Your task to perform on an android device: Open Google Chrome and open the bookmarks view Image 0: 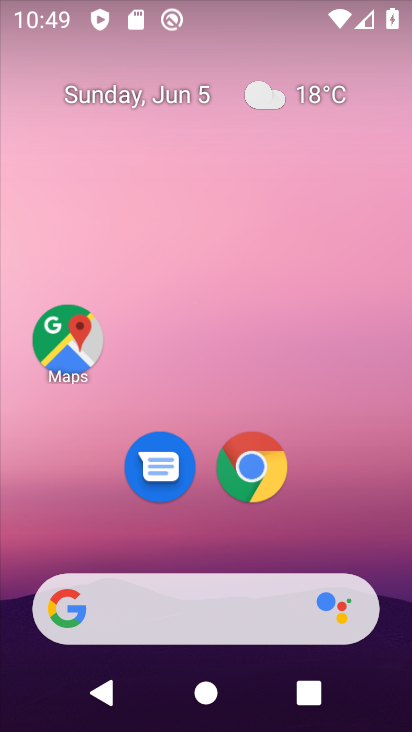
Step 0: click (369, 687)
Your task to perform on an android device: Open Google Chrome and open the bookmarks view Image 1: 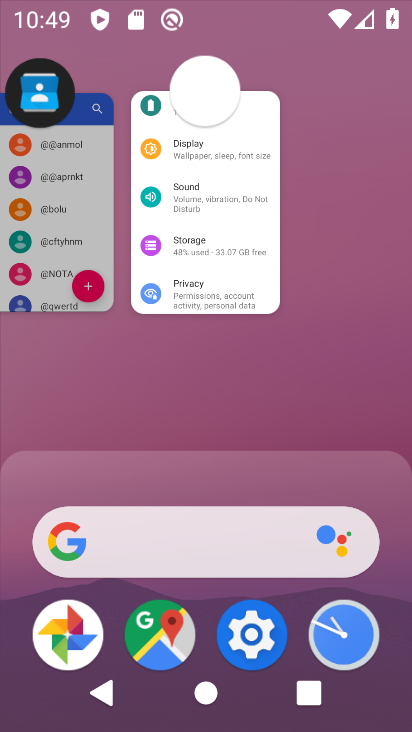
Step 1: click (273, 427)
Your task to perform on an android device: Open Google Chrome and open the bookmarks view Image 2: 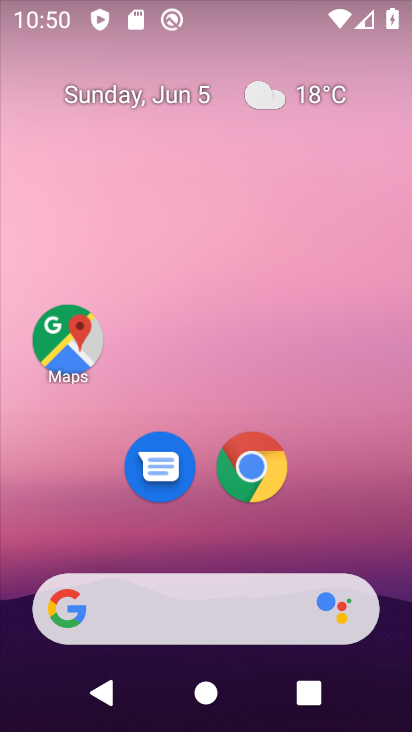
Step 2: click (262, 473)
Your task to perform on an android device: Open Google Chrome and open the bookmarks view Image 3: 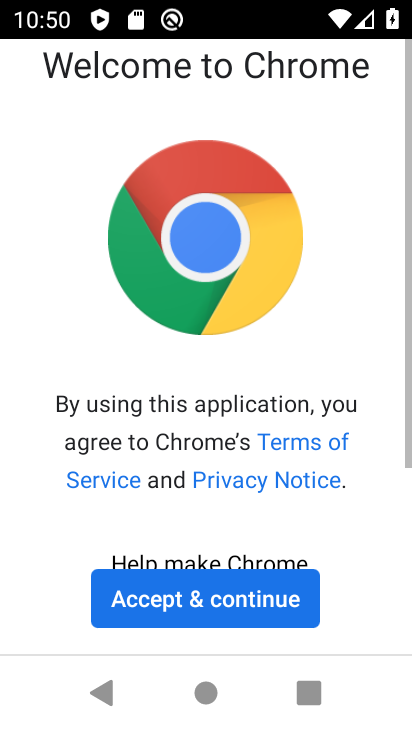
Step 3: click (378, 91)
Your task to perform on an android device: Open Google Chrome and open the bookmarks view Image 4: 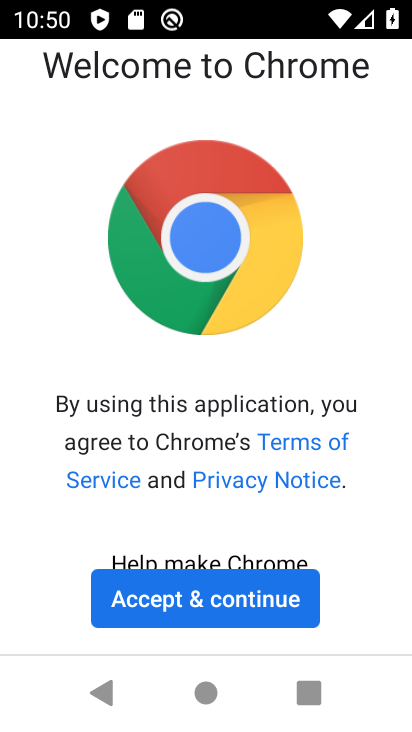
Step 4: click (200, 586)
Your task to perform on an android device: Open Google Chrome and open the bookmarks view Image 5: 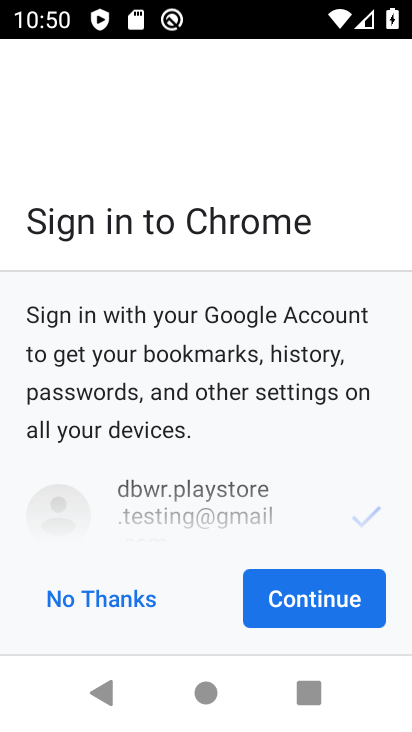
Step 5: click (284, 586)
Your task to perform on an android device: Open Google Chrome and open the bookmarks view Image 6: 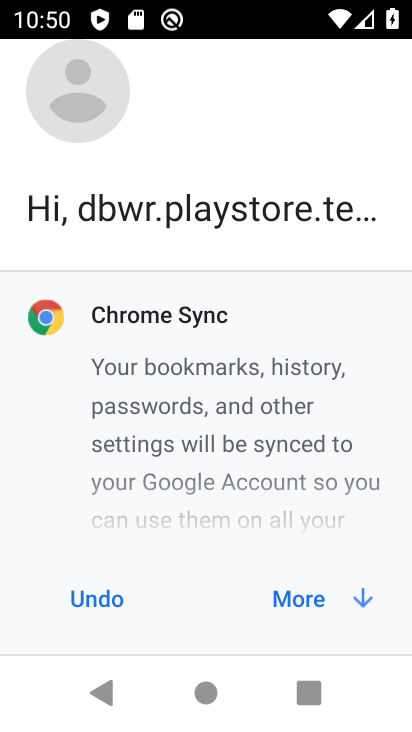
Step 6: click (284, 586)
Your task to perform on an android device: Open Google Chrome and open the bookmarks view Image 7: 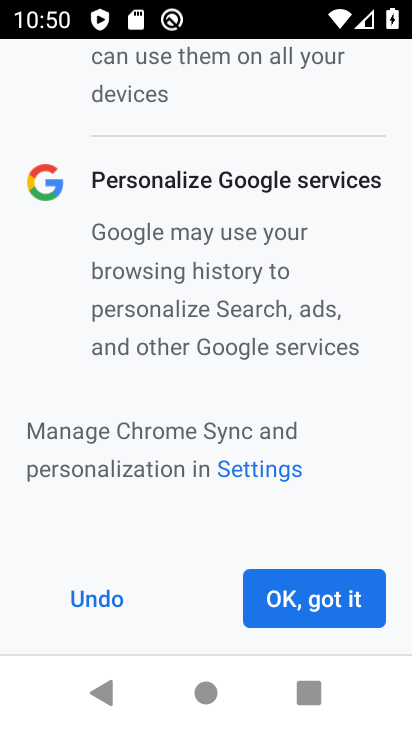
Step 7: click (284, 586)
Your task to perform on an android device: Open Google Chrome and open the bookmarks view Image 8: 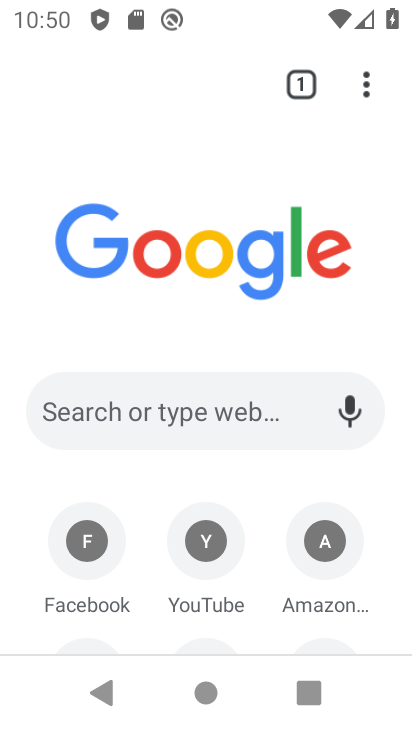
Step 8: click (364, 96)
Your task to perform on an android device: Open Google Chrome and open the bookmarks view Image 9: 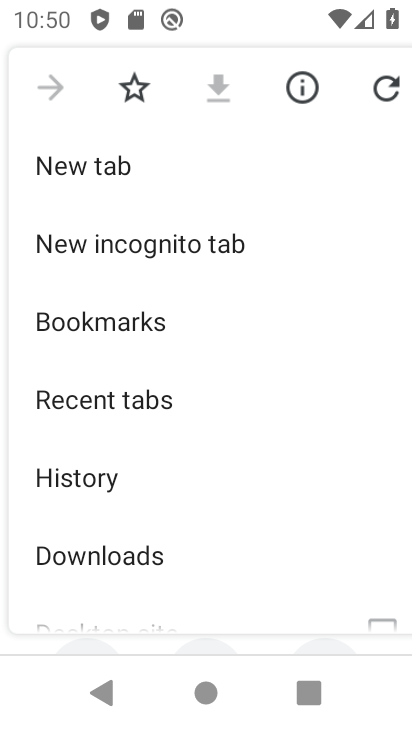
Step 9: click (159, 316)
Your task to perform on an android device: Open Google Chrome and open the bookmarks view Image 10: 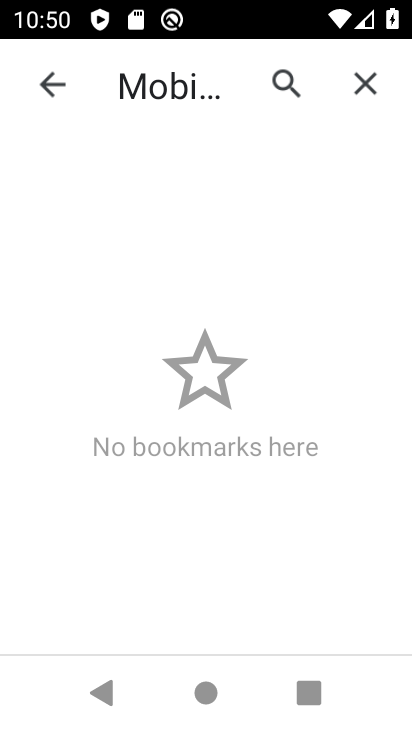
Step 10: task complete